Your task to perform on an android device: turn off javascript in the chrome app Image 0: 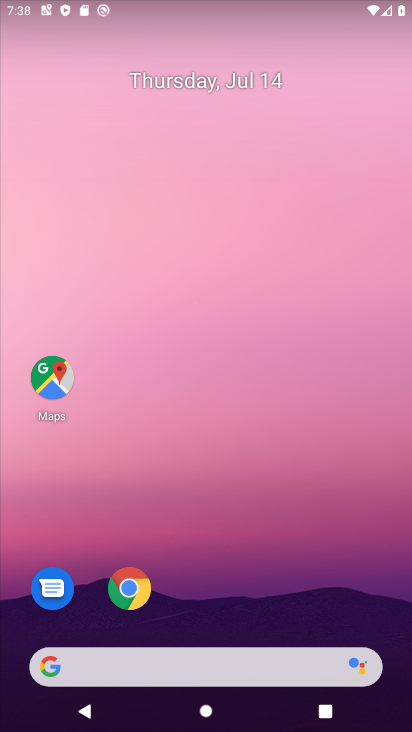
Step 0: drag from (366, 606) to (241, 16)
Your task to perform on an android device: turn off javascript in the chrome app Image 1: 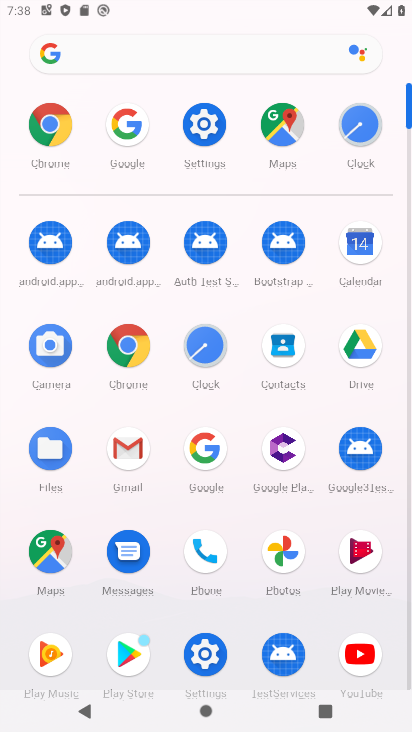
Step 1: click (116, 325)
Your task to perform on an android device: turn off javascript in the chrome app Image 2: 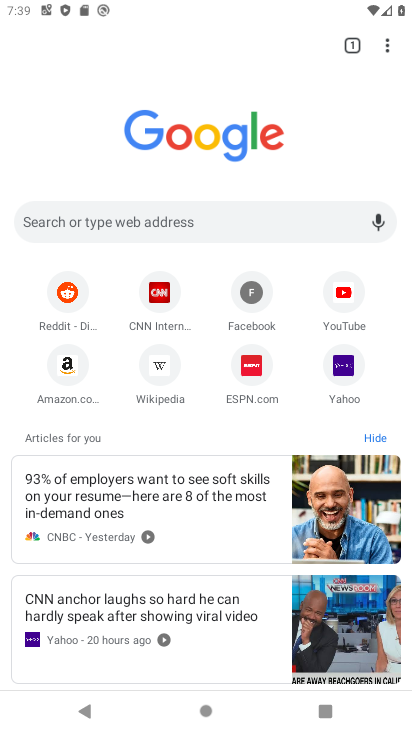
Step 2: click (384, 37)
Your task to perform on an android device: turn off javascript in the chrome app Image 3: 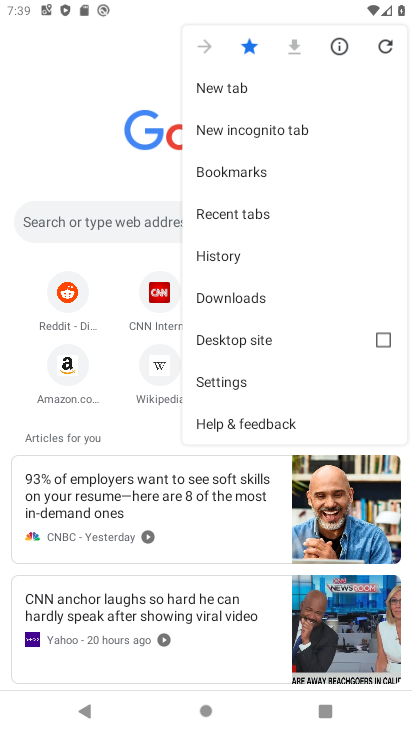
Step 3: click (240, 390)
Your task to perform on an android device: turn off javascript in the chrome app Image 4: 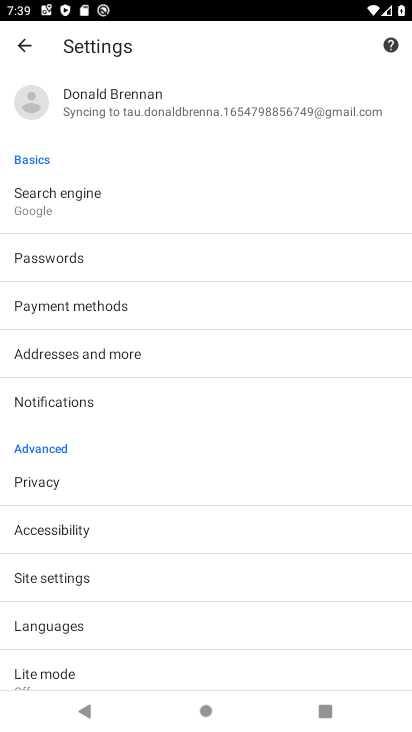
Step 4: click (83, 573)
Your task to perform on an android device: turn off javascript in the chrome app Image 5: 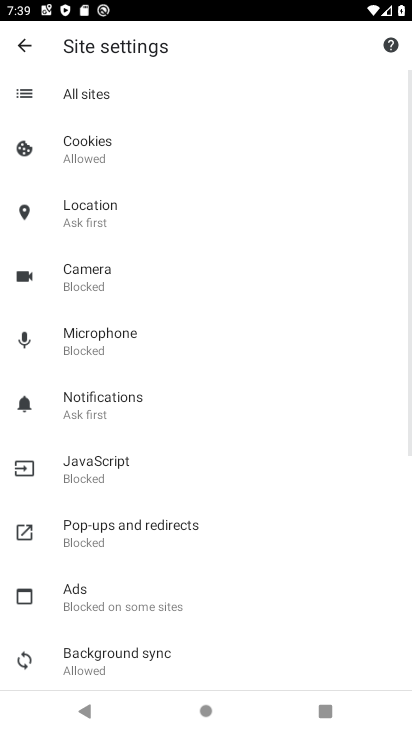
Step 5: click (114, 467)
Your task to perform on an android device: turn off javascript in the chrome app Image 6: 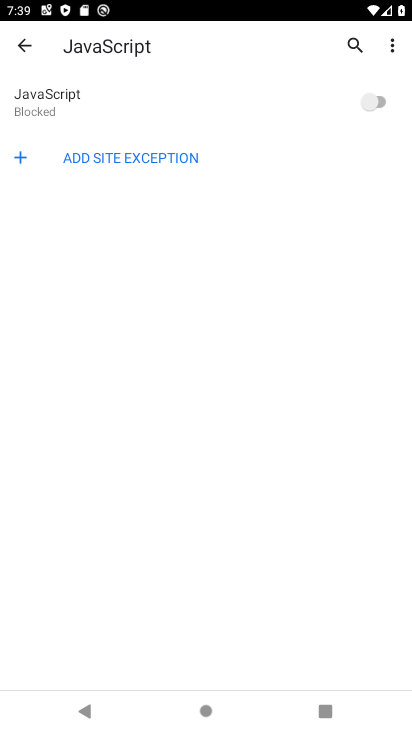
Step 6: task complete